Your task to perform on an android device: toggle priority inbox in the gmail app Image 0: 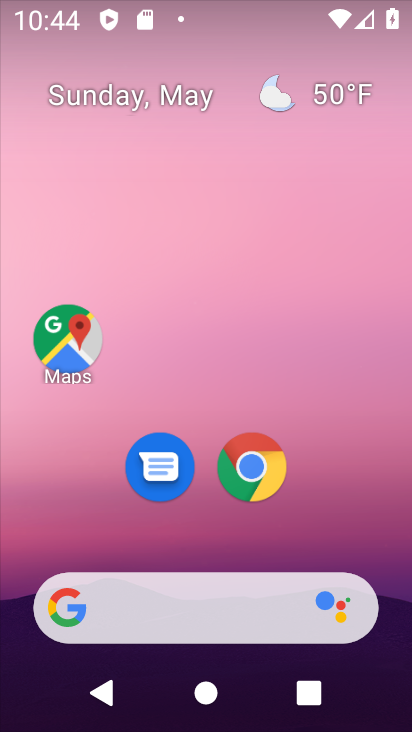
Step 0: drag from (112, 571) to (218, 215)
Your task to perform on an android device: toggle priority inbox in the gmail app Image 1: 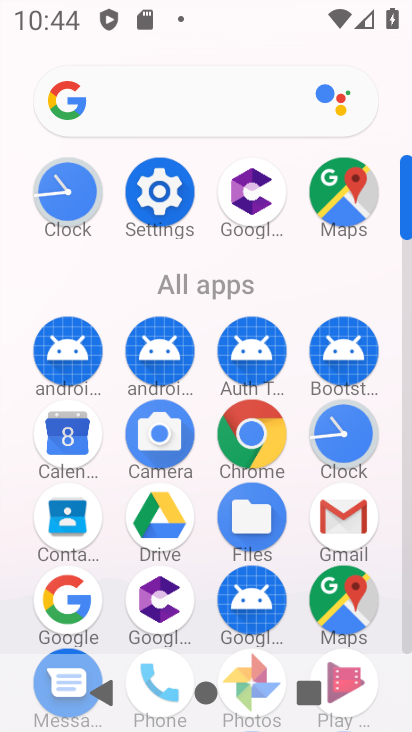
Step 1: click (370, 517)
Your task to perform on an android device: toggle priority inbox in the gmail app Image 2: 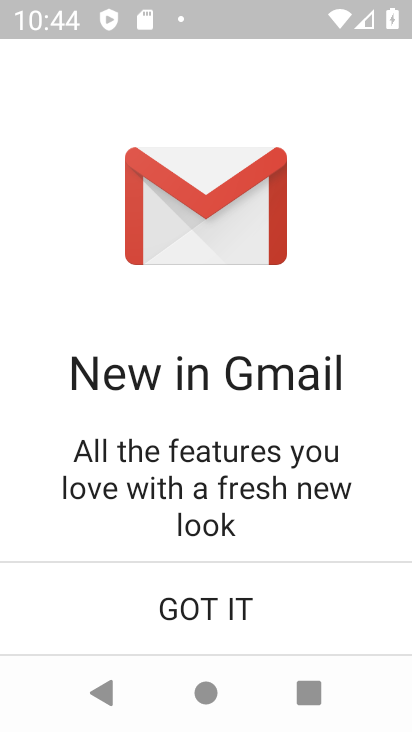
Step 2: click (242, 592)
Your task to perform on an android device: toggle priority inbox in the gmail app Image 3: 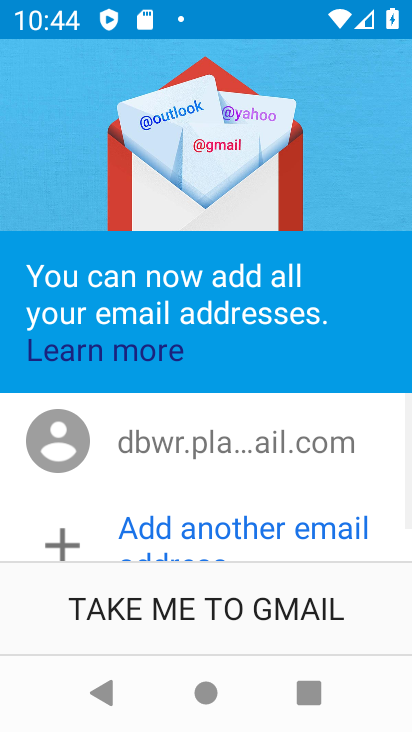
Step 3: click (240, 593)
Your task to perform on an android device: toggle priority inbox in the gmail app Image 4: 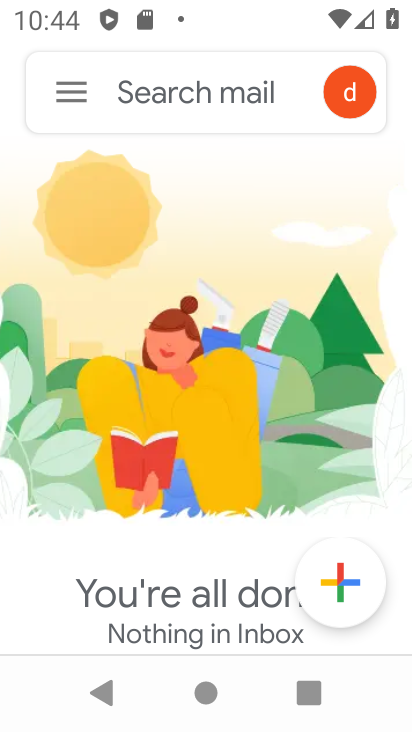
Step 4: click (73, 93)
Your task to perform on an android device: toggle priority inbox in the gmail app Image 5: 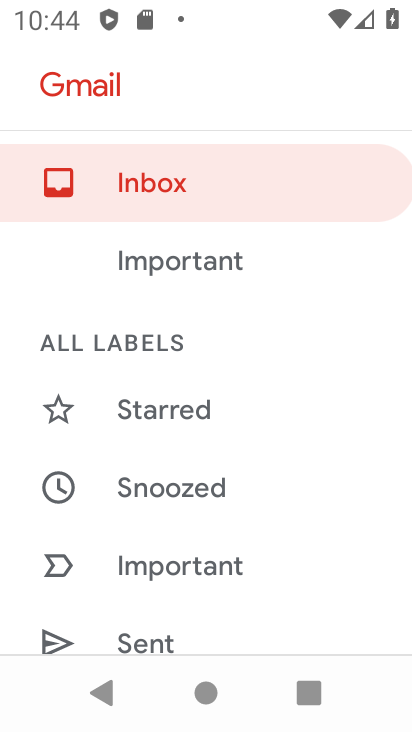
Step 5: drag from (184, 564) to (266, 214)
Your task to perform on an android device: toggle priority inbox in the gmail app Image 6: 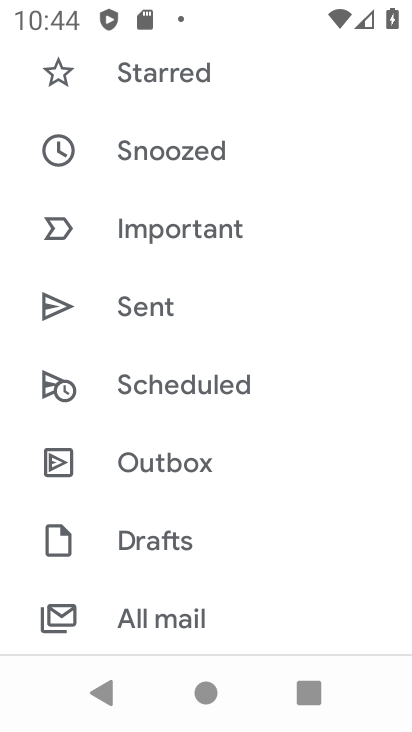
Step 6: drag from (160, 590) to (207, 305)
Your task to perform on an android device: toggle priority inbox in the gmail app Image 7: 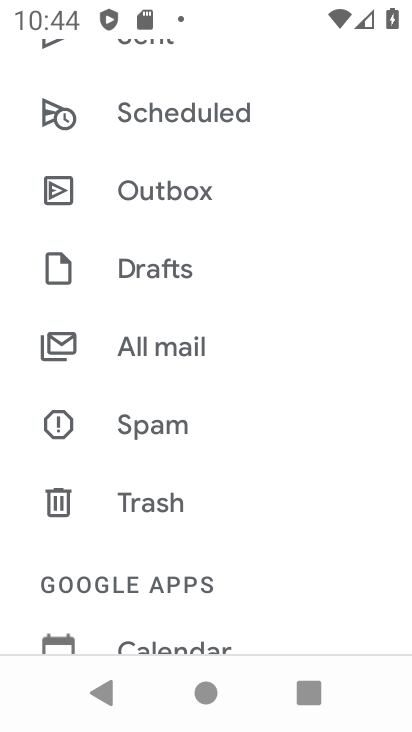
Step 7: drag from (199, 537) to (247, 280)
Your task to perform on an android device: toggle priority inbox in the gmail app Image 8: 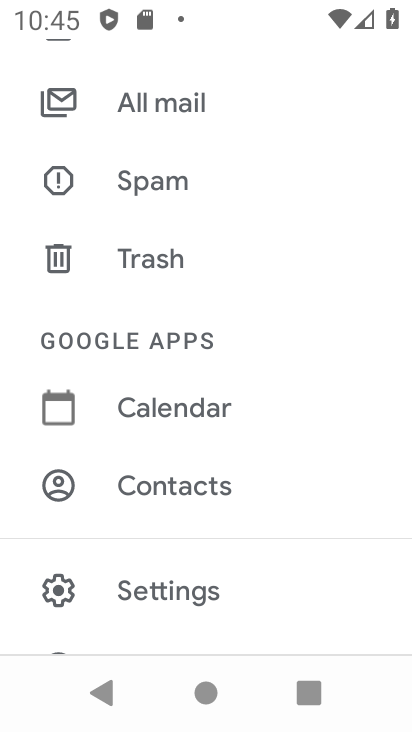
Step 8: click (231, 612)
Your task to perform on an android device: toggle priority inbox in the gmail app Image 9: 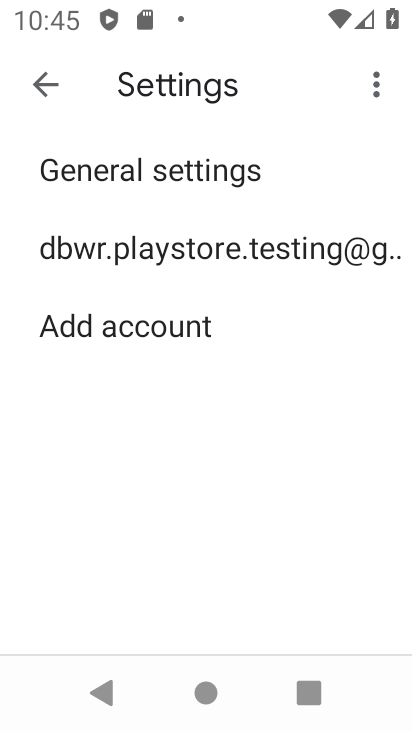
Step 9: click (231, 612)
Your task to perform on an android device: toggle priority inbox in the gmail app Image 10: 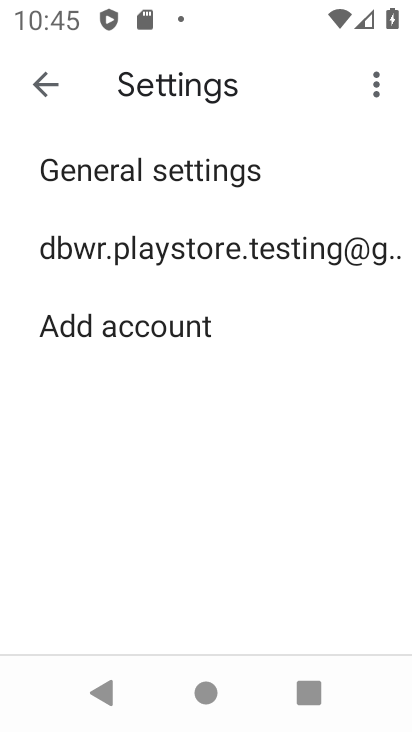
Step 10: click (336, 270)
Your task to perform on an android device: toggle priority inbox in the gmail app Image 11: 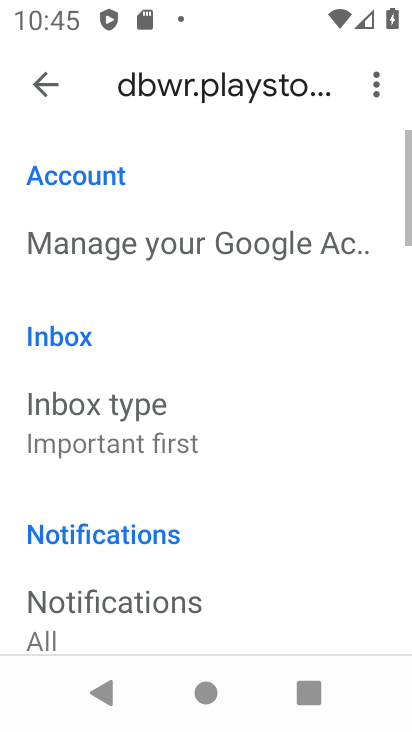
Step 11: click (238, 413)
Your task to perform on an android device: toggle priority inbox in the gmail app Image 12: 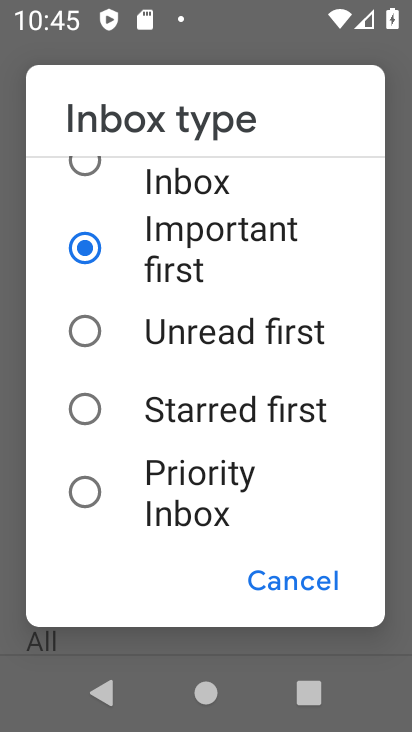
Step 12: click (202, 513)
Your task to perform on an android device: toggle priority inbox in the gmail app Image 13: 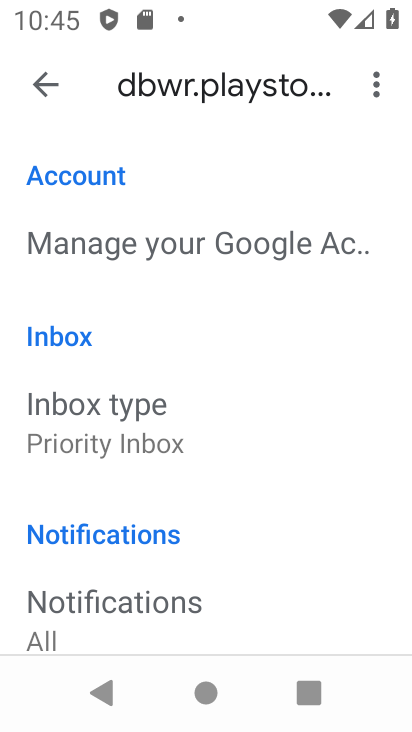
Step 13: task complete